Your task to perform on an android device: Check the weather Image 0: 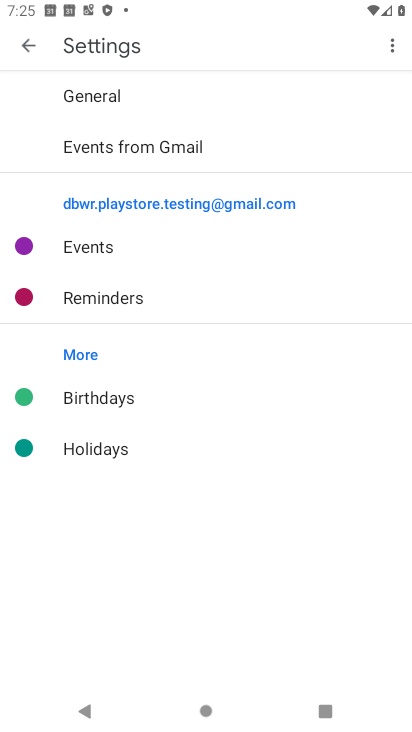
Step 0: press home button
Your task to perform on an android device: Check the weather Image 1: 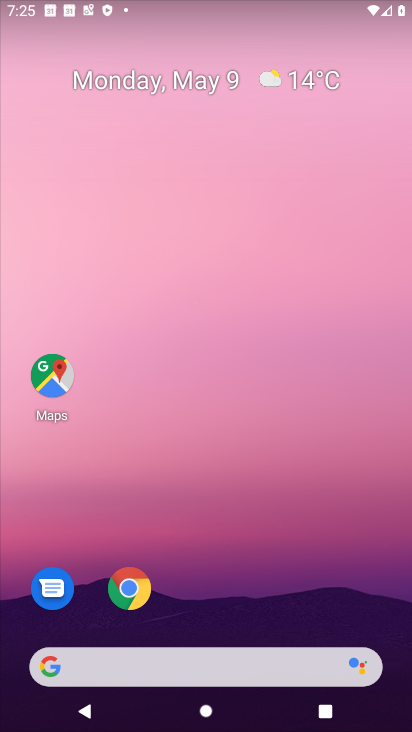
Step 1: drag from (309, 614) to (292, 158)
Your task to perform on an android device: Check the weather Image 2: 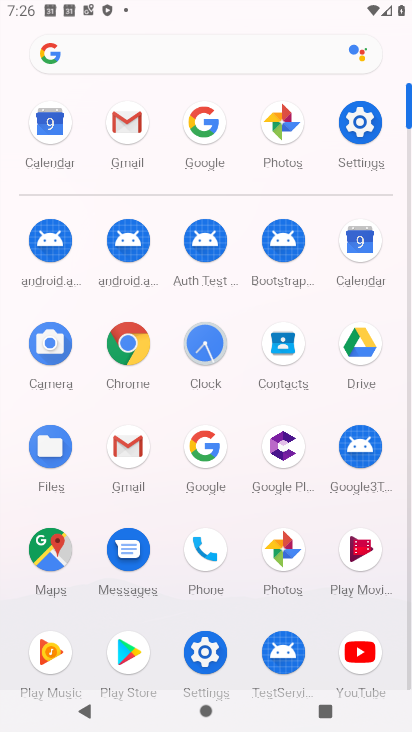
Step 2: press home button
Your task to perform on an android device: Check the weather Image 3: 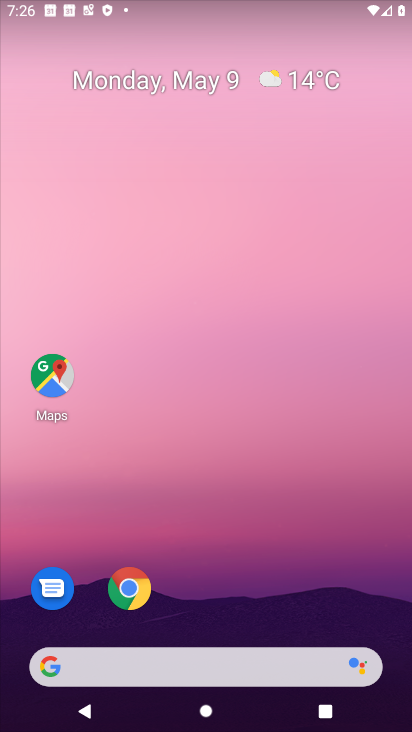
Step 3: click (164, 672)
Your task to perform on an android device: Check the weather Image 4: 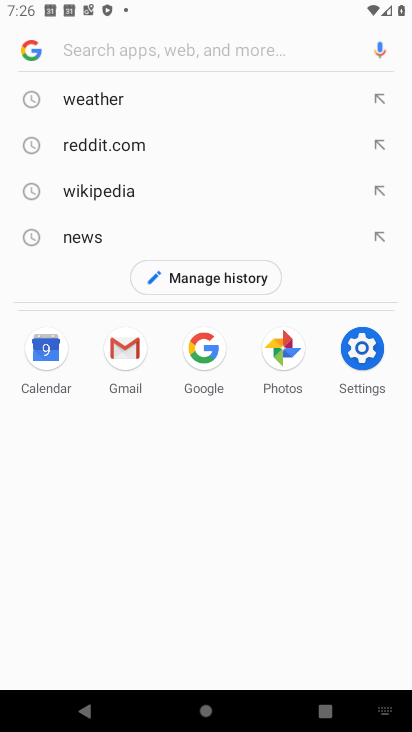
Step 4: click (185, 103)
Your task to perform on an android device: Check the weather Image 5: 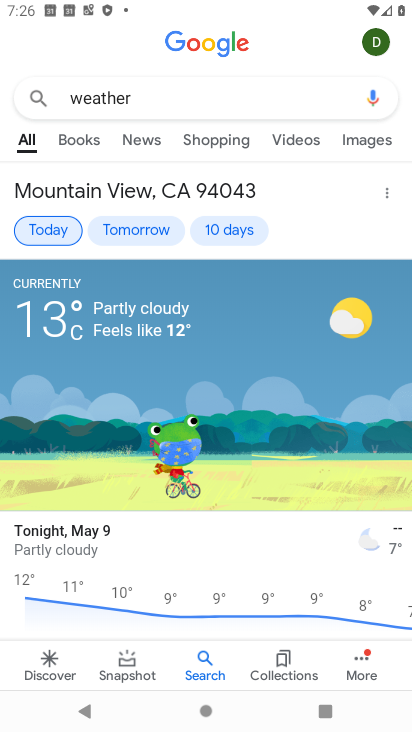
Step 5: task complete